Your task to perform on an android device: toggle airplane mode Image 0: 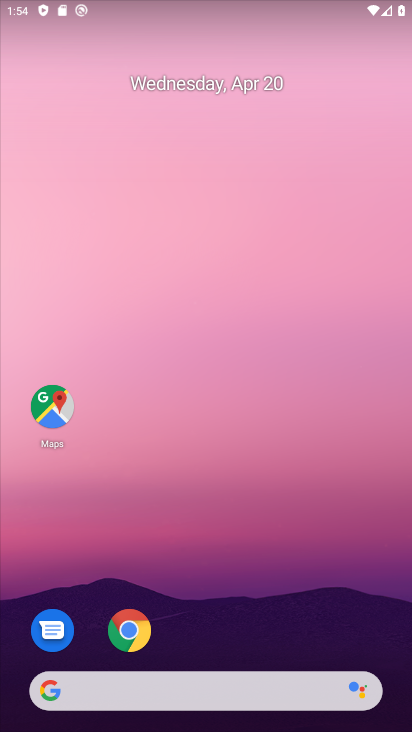
Step 0: drag from (344, 520) to (315, 259)
Your task to perform on an android device: toggle airplane mode Image 1: 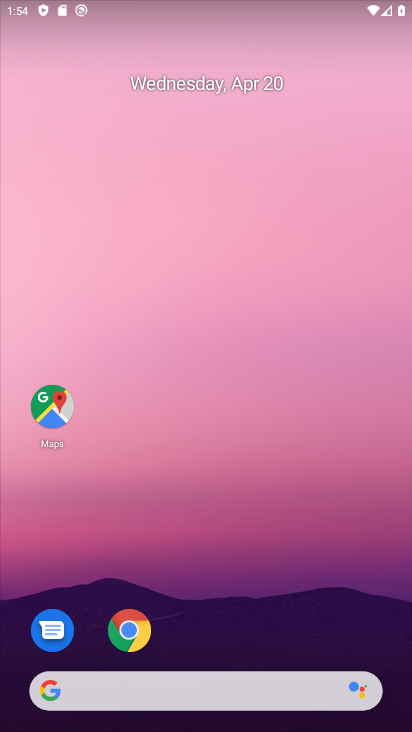
Step 1: drag from (311, 522) to (236, 36)
Your task to perform on an android device: toggle airplane mode Image 2: 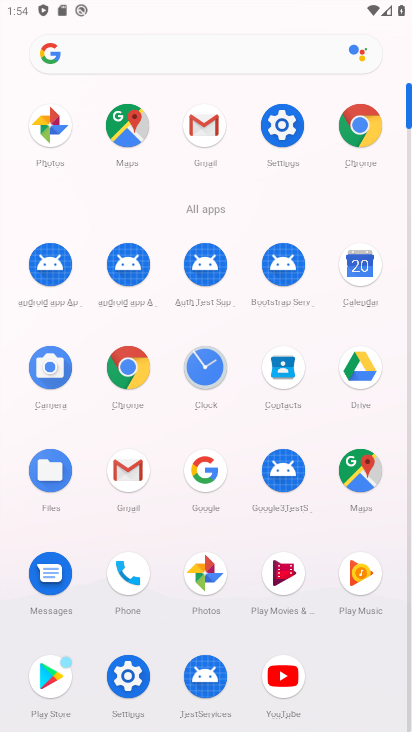
Step 2: click (283, 115)
Your task to perform on an android device: toggle airplane mode Image 3: 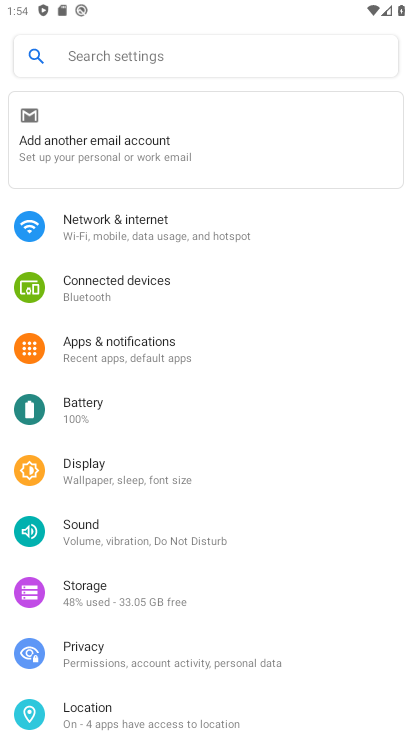
Step 3: click (255, 221)
Your task to perform on an android device: toggle airplane mode Image 4: 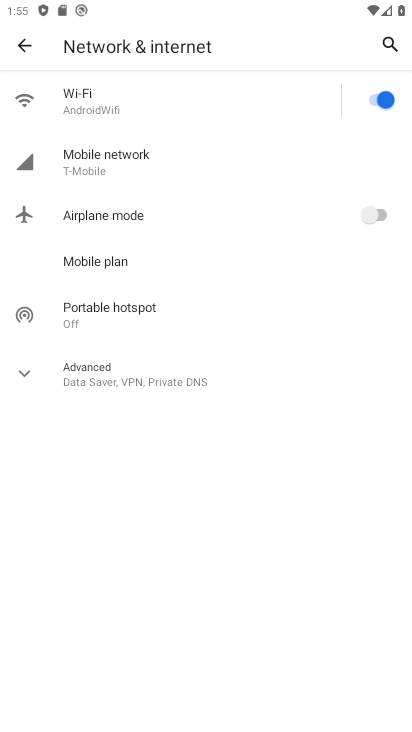
Step 4: click (377, 216)
Your task to perform on an android device: toggle airplane mode Image 5: 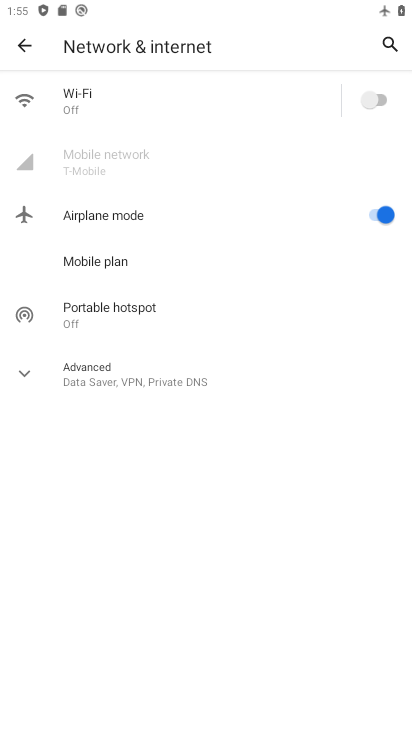
Step 5: task complete